Your task to perform on an android device: toggle show notifications on the lock screen Image 0: 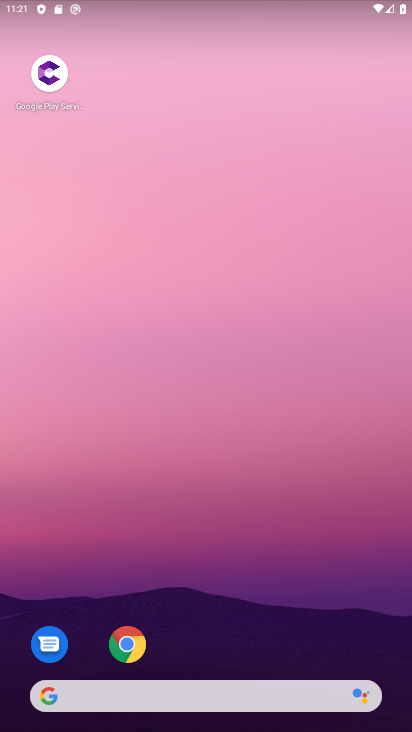
Step 0: drag from (268, 652) to (275, 200)
Your task to perform on an android device: toggle show notifications on the lock screen Image 1: 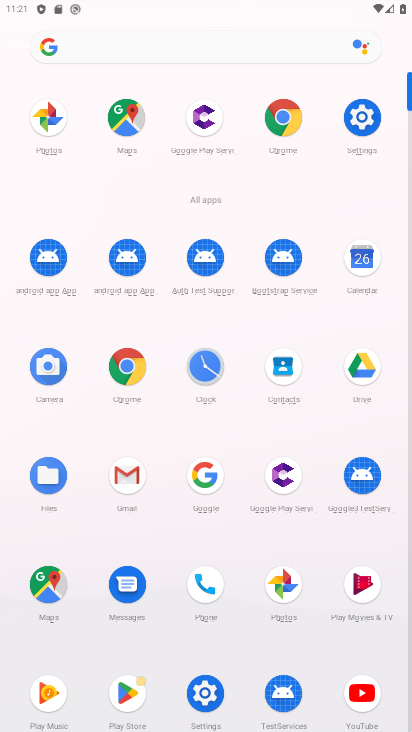
Step 1: click (362, 128)
Your task to perform on an android device: toggle show notifications on the lock screen Image 2: 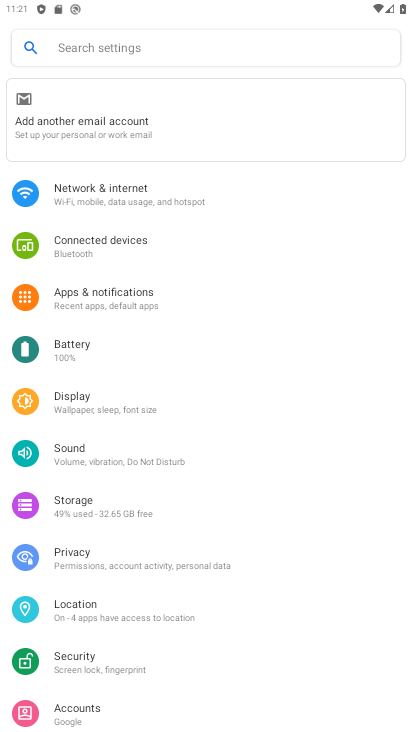
Step 2: click (154, 302)
Your task to perform on an android device: toggle show notifications on the lock screen Image 3: 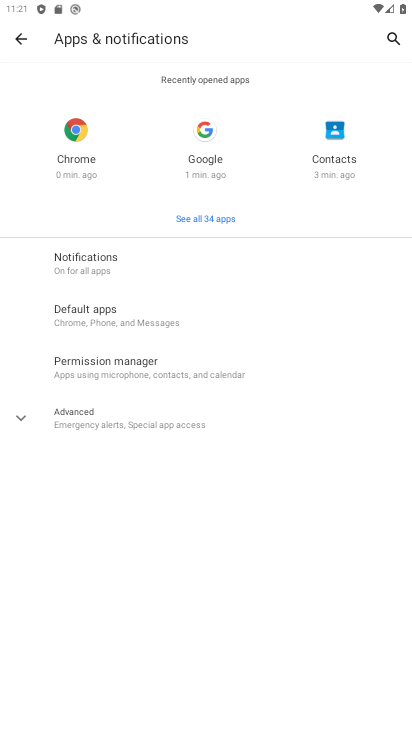
Step 3: click (123, 262)
Your task to perform on an android device: toggle show notifications on the lock screen Image 4: 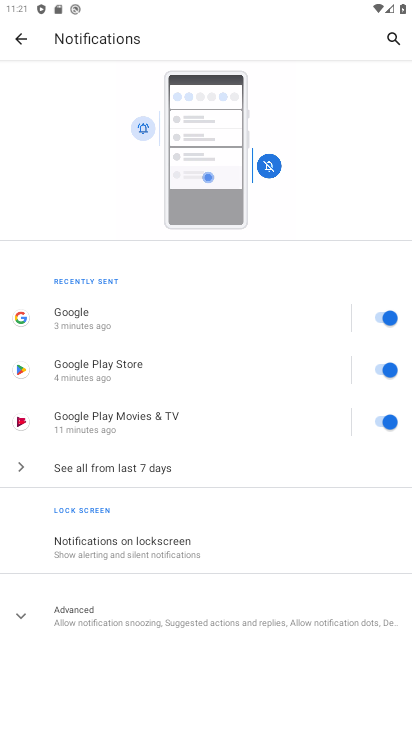
Step 4: click (160, 545)
Your task to perform on an android device: toggle show notifications on the lock screen Image 5: 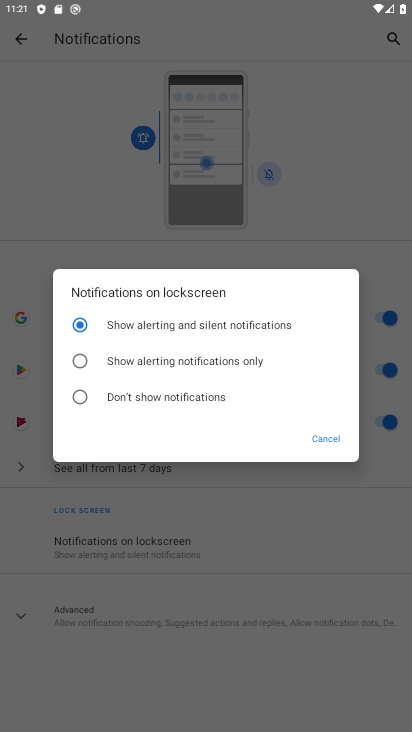
Step 5: click (192, 361)
Your task to perform on an android device: toggle show notifications on the lock screen Image 6: 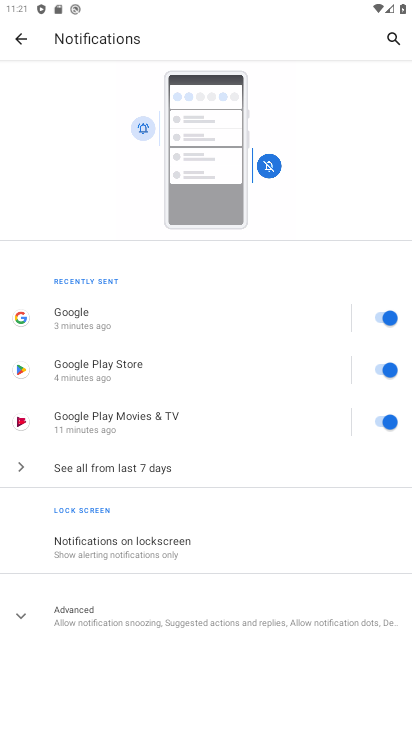
Step 6: task complete